Your task to perform on an android device: turn off location Image 0: 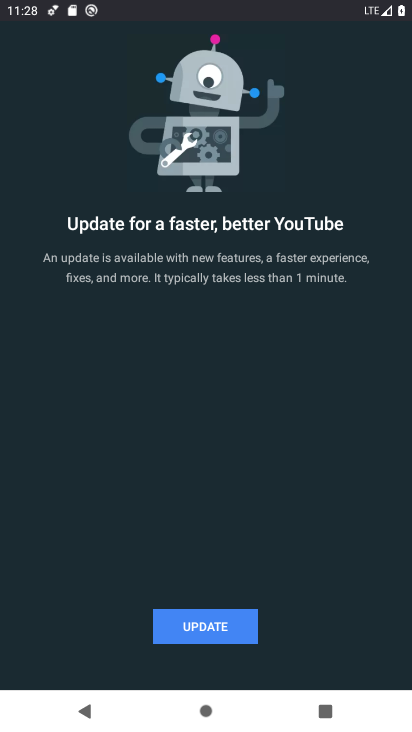
Step 0: press home button
Your task to perform on an android device: turn off location Image 1: 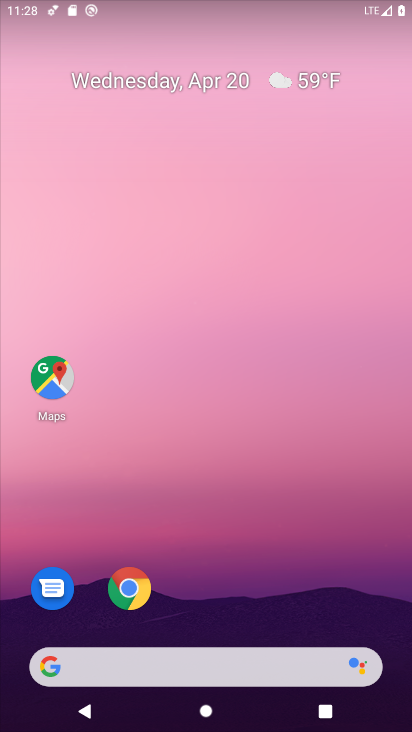
Step 1: drag from (232, 612) to (234, 10)
Your task to perform on an android device: turn off location Image 2: 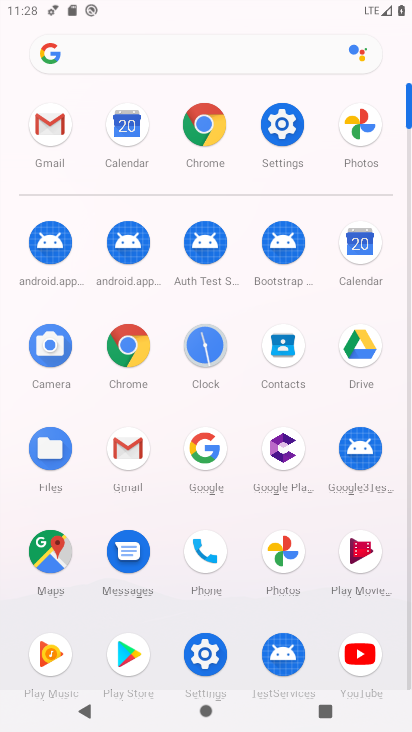
Step 2: click (281, 125)
Your task to perform on an android device: turn off location Image 3: 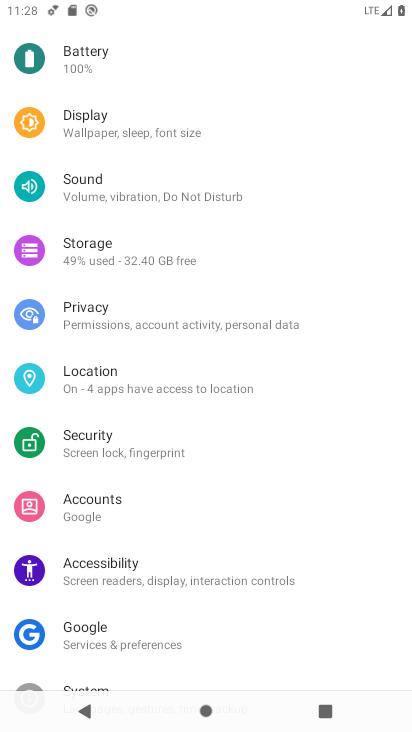
Step 3: click (82, 372)
Your task to perform on an android device: turn off location Image 4: 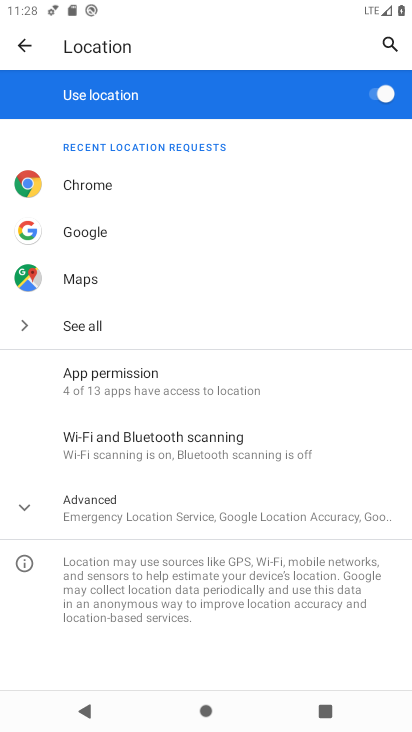
Step 4: click (385, 97)
Your task to perform on an android device: turn off location Image 5: 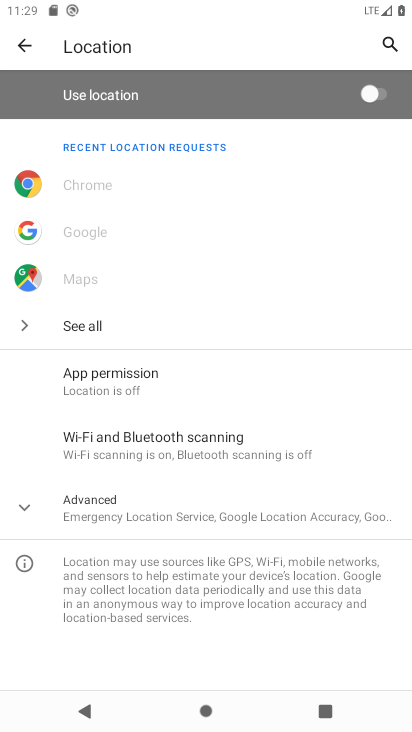
Step 5: task complete